Your task to perform on an android device: Go to Google Image 0: 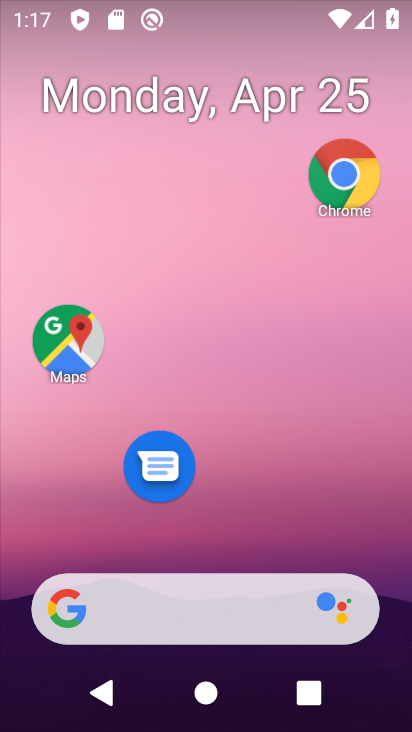
Step 0: drag from (280, 532) to (257, 329)
Your task to perform on an android device: Go to Google Image 1: 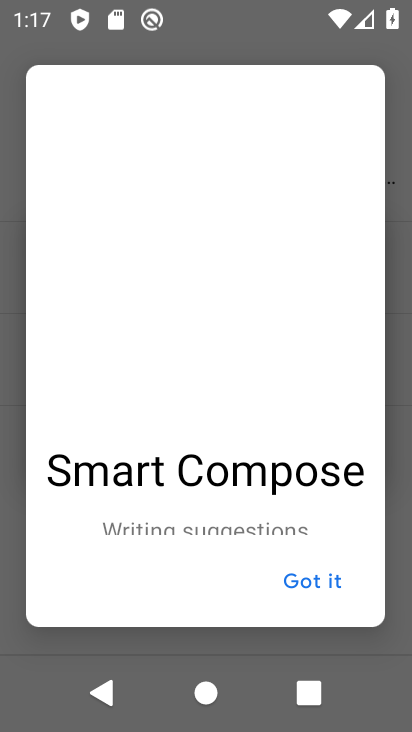
Step 1: press home button
Your task to perform on an android device: Go to Google Image 2: 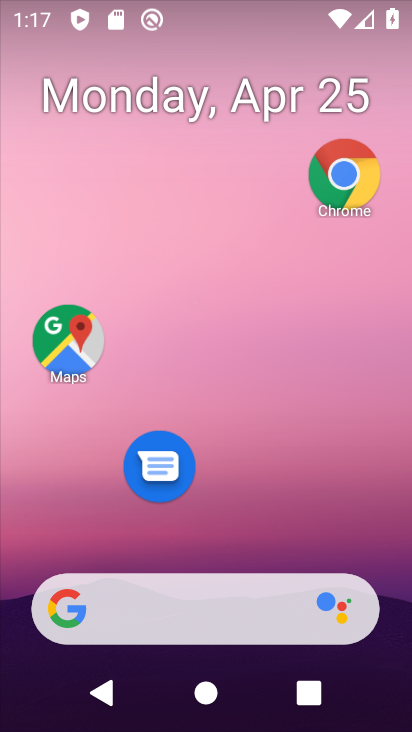
Step 2: drag from (224, 519) to (205, 161)
Your task to perform on an android device: Go to Google Image 3: 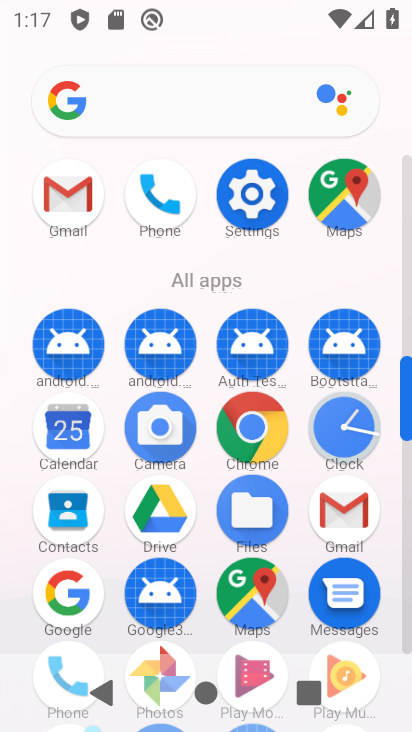
Step 3: click (83, 579)
Your task to perform on an android device: Go to Google Image 4: 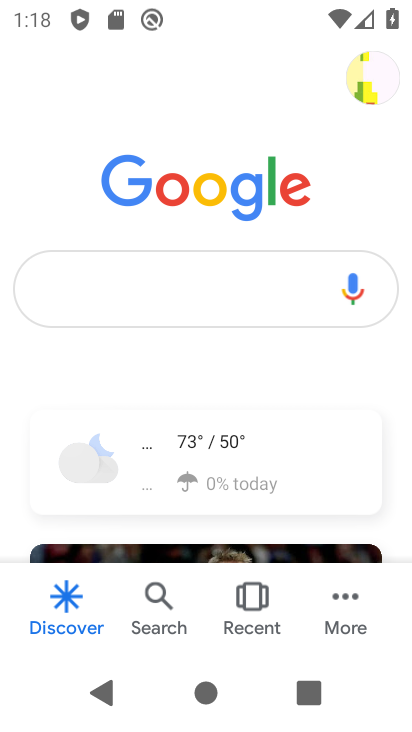
Step 4: task complete